Your task to perform on an android device: Open the phone app and click the voicemail tab. Image 0: 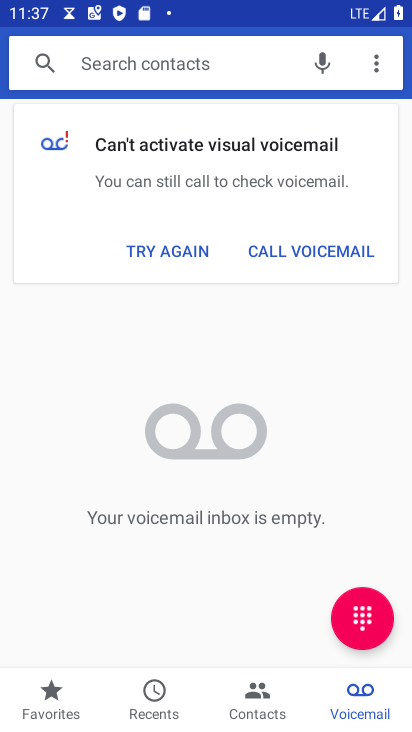
Step 0: press home button
Your task to perform on an android device: Open the phone app and click the voicemail tab. Image 1: 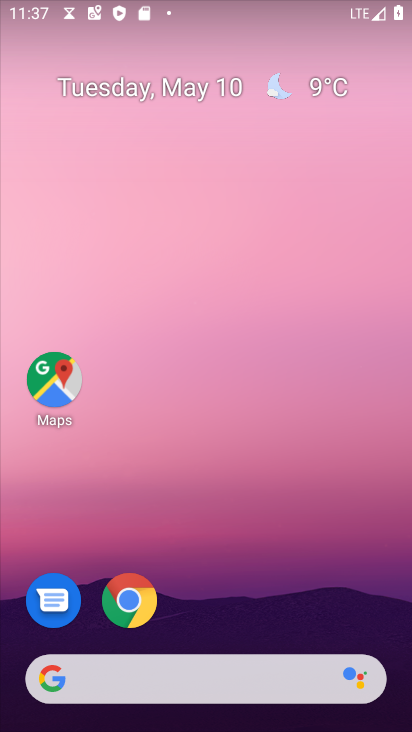
Step 1: drag from (242, 577) to (185, 33)
Your task to perform on an android device: Open the phone app and click the voicemail tab. Image 2: 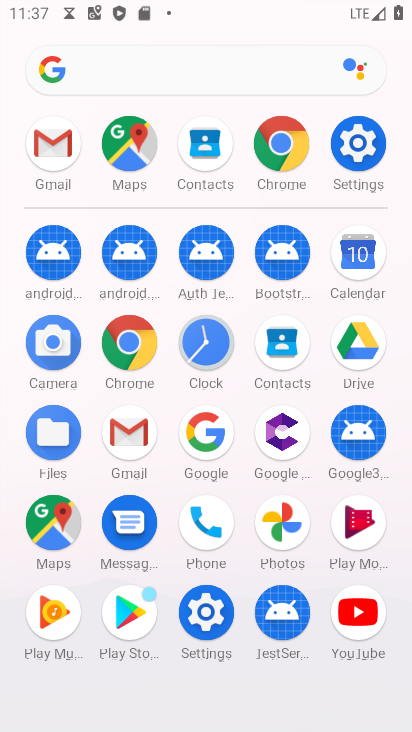
Step 2: click (211, 517)
Your task to perform on an android device: Open the phone app and click the voicemail tab. Image 3: 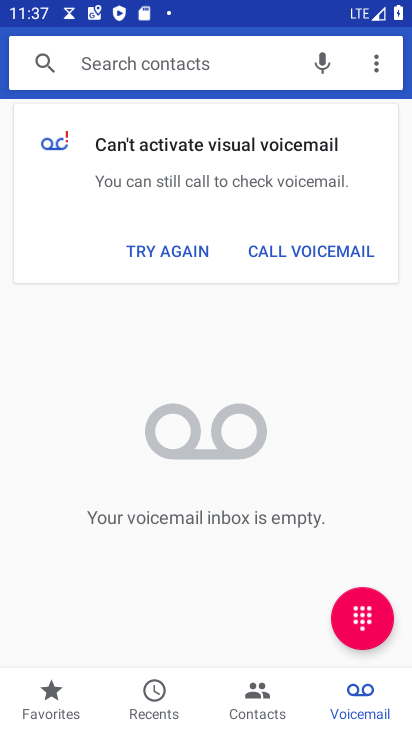
Step 3: click (362, 694)
Your task to perform on an android device: Open the phone app and click the voicemail tab. Image 4: 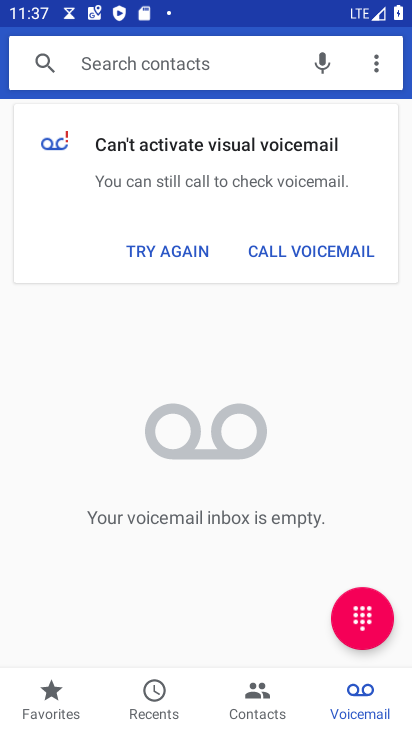
Step 4: task complete